Your task to perform on an android device: clear history in the chrome app Image 0: 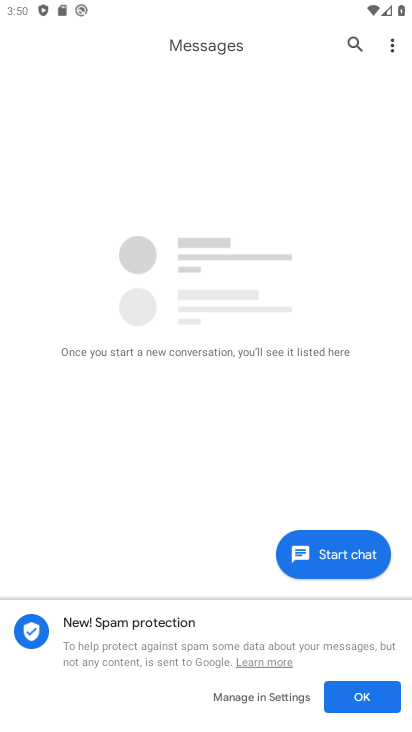
Step 0: press home button
Your task to perform on an android device: clear history in the chrome app Image 1: 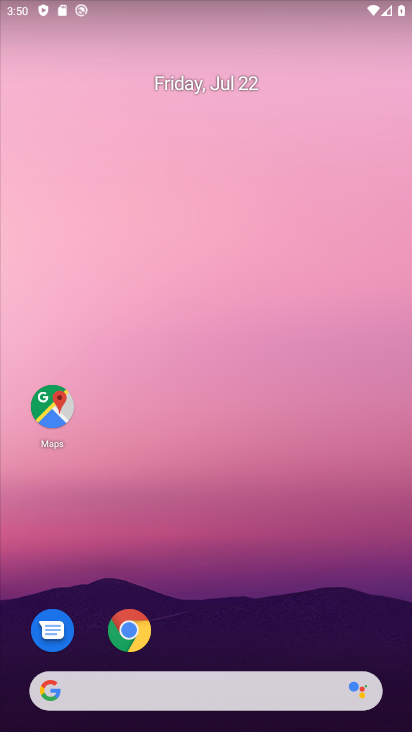
Step 1: click (136, 636)
Your task to perform on an android device: clear history in the chrome app Image 2: 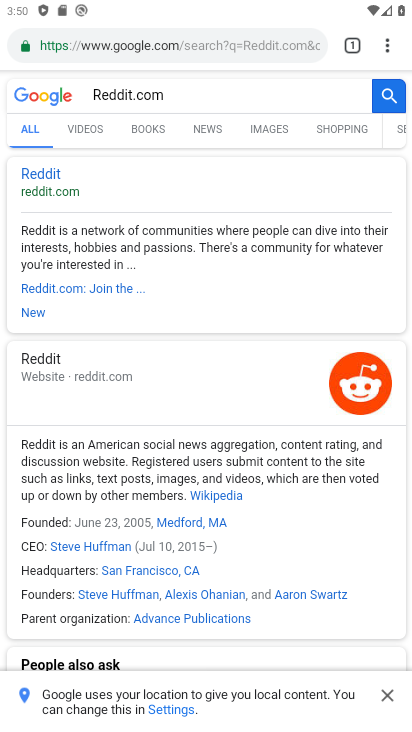
Step 2: click (382, 49)
Your task to perform on an android device: clear history in the chrome app Image 3: 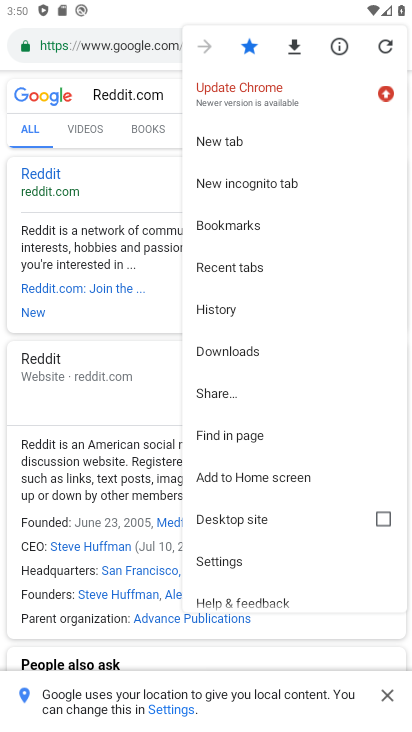
Step 3: click (225, 301)
Your task to perform on an android device: clear history in the chrome app Image 4: 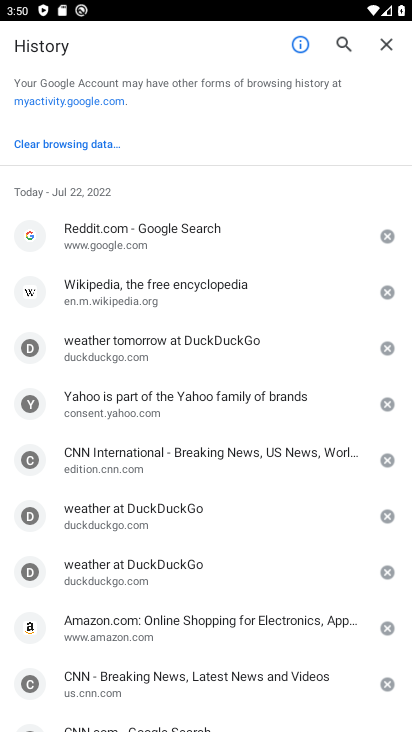
Step 4: click (81, 144)
Your task to perform on an android device: clear history in the chrome app Image 5: 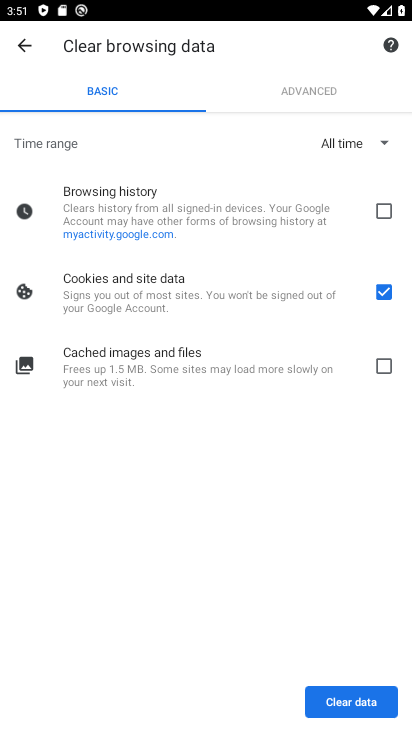
Step 5: click (375, 207)
Your task to perform on an android device: clear history in the chrome app Image 6: 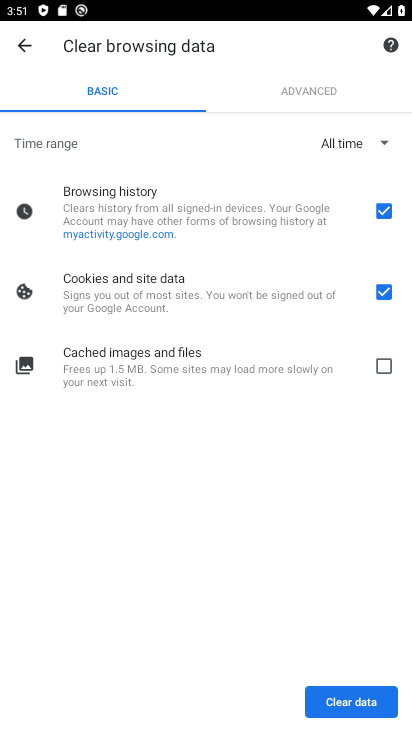
Step 6: click (385, 365)
Your task to perform on an android device: clear history in the chrome app Image 7: 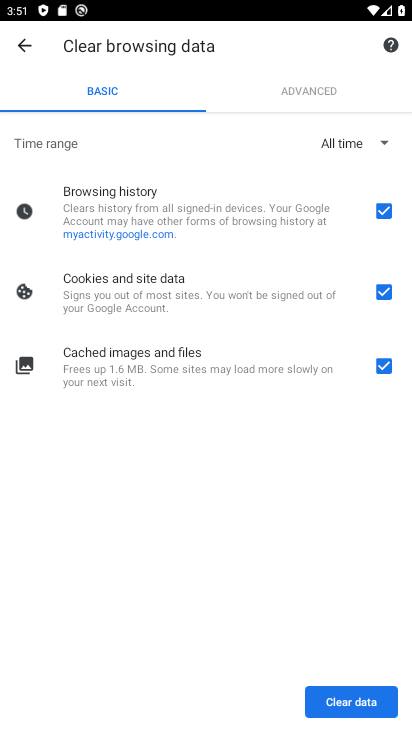
Step 7: click (388, 702)
Your task to perform on an android device: clear history in the chrome app Image 8: 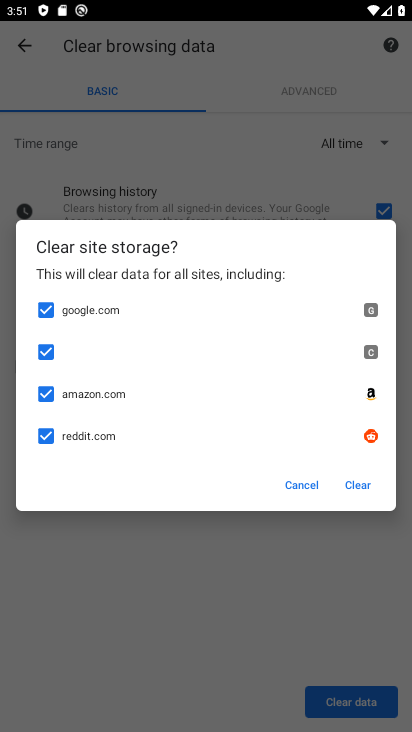
Step 8: click (354, 490)
Your task to perform on an android device: clear history in the chrome app Image 9: 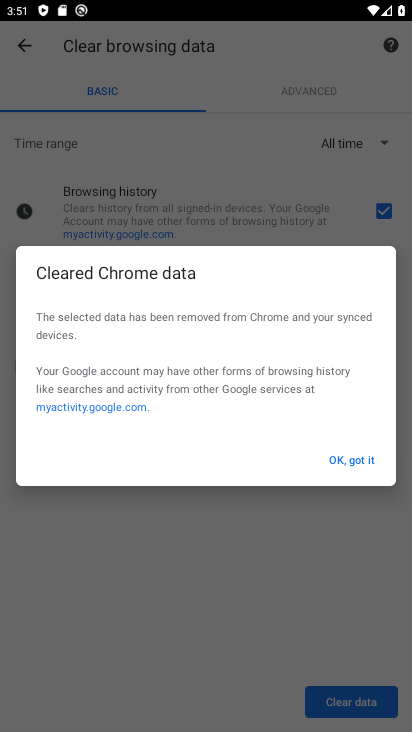
Step 9: click (363, 450)
Your task to perform on an android device: clear history in the chrome app Image 10: 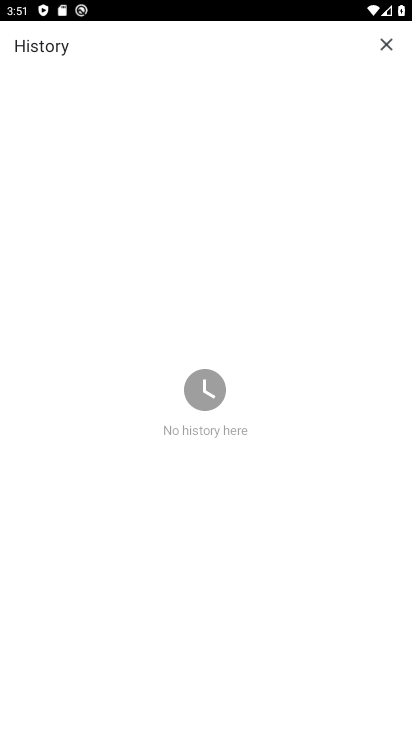
Step 10: task complete